Your task to perform on an android device: Open CNN.com Image 0: 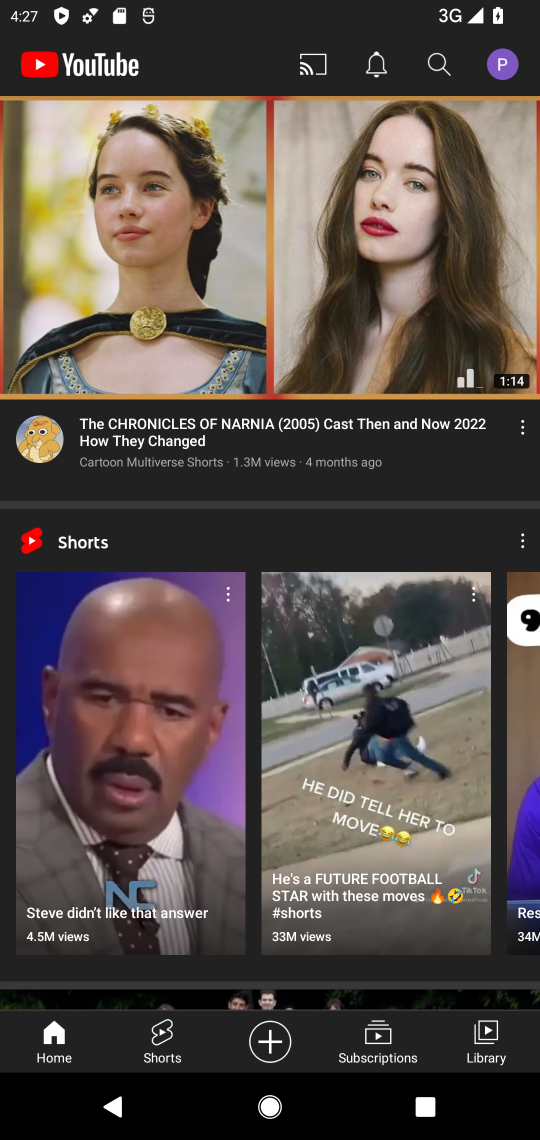
Step 0: press home button
Your task to perform on an android device: Open CNN.com Image 1: 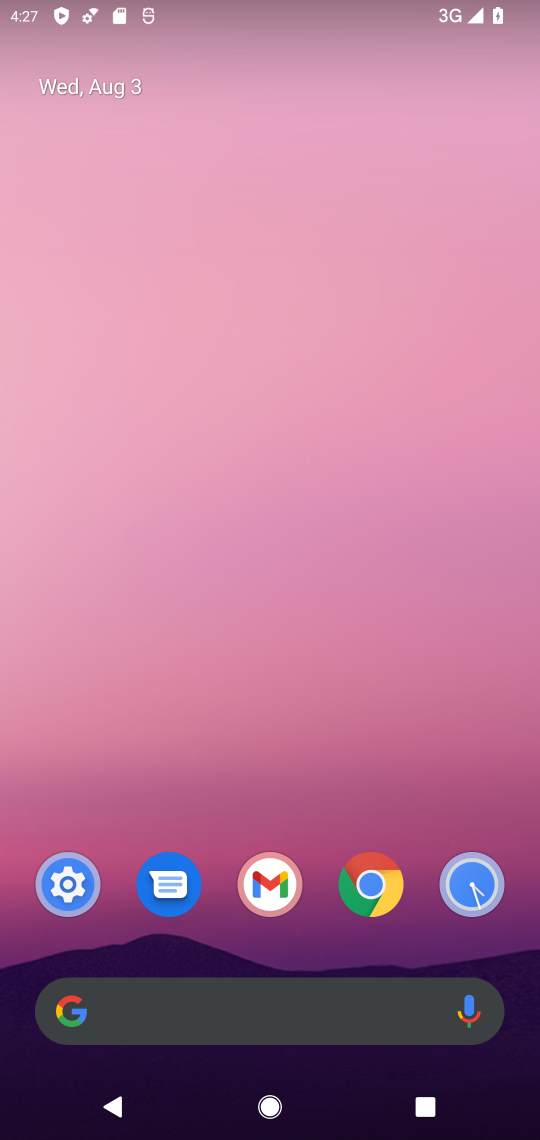
Step 1: drag from (331, 955) to (334, 114)
Your task to perform on an android device: Open CNN.com Image 2: 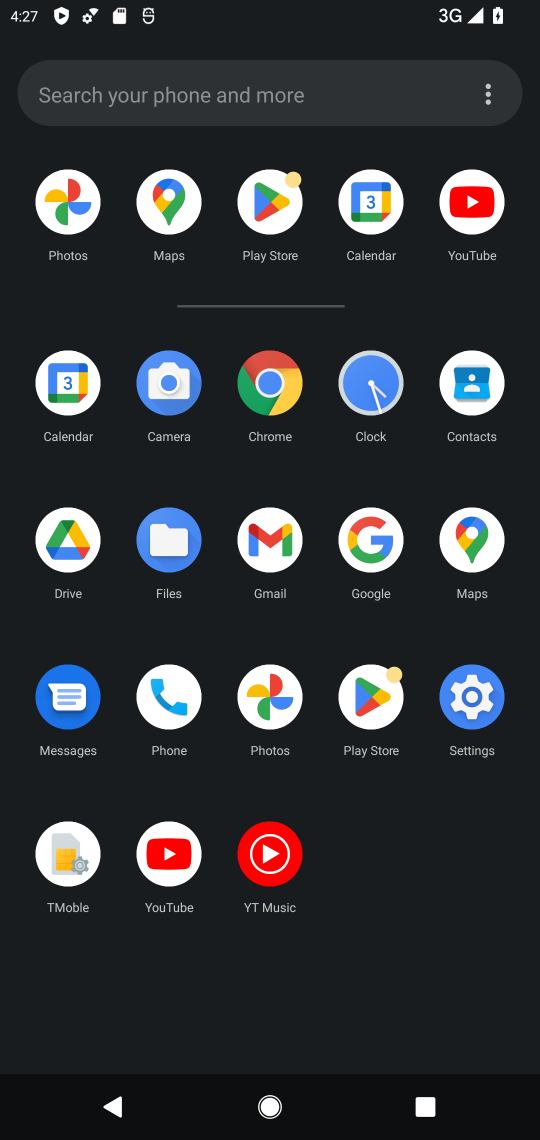
Step 2: click (290, 568)
Your task to perform on an android device: Open CNN.com Image 3: 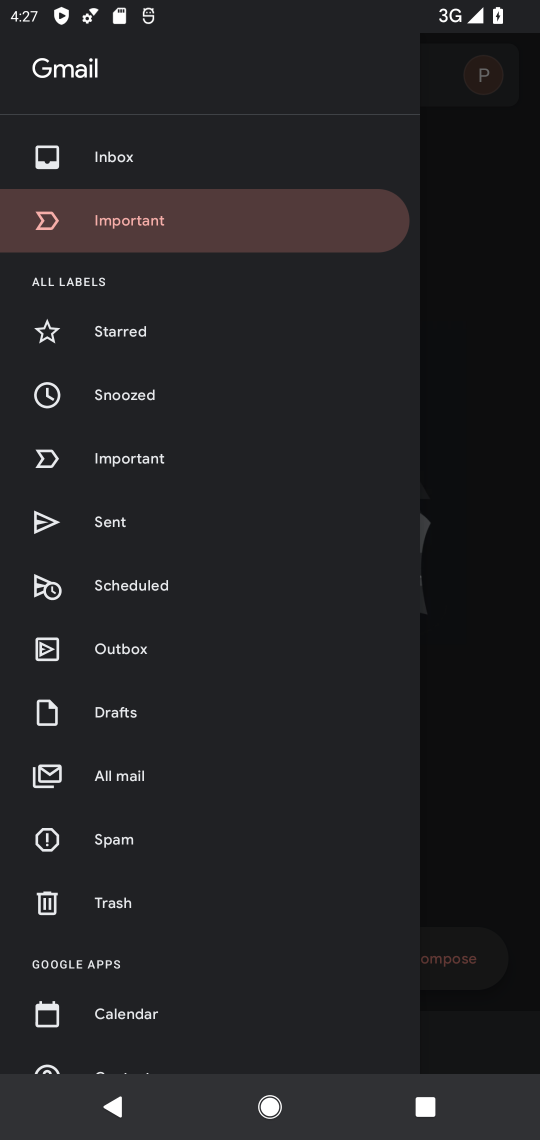
Step 3: click (447, 217)
Your task to perform on an android device: Open CNN.com Image 4: 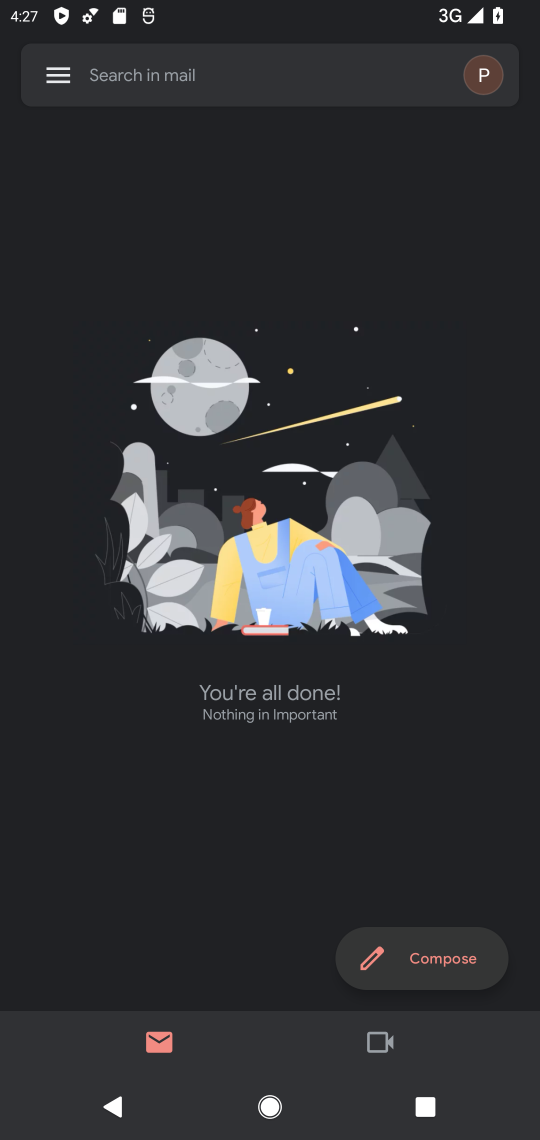
Step 4: task complete